Your task to perform on an android device: change your default location settings in chrome Image 0: 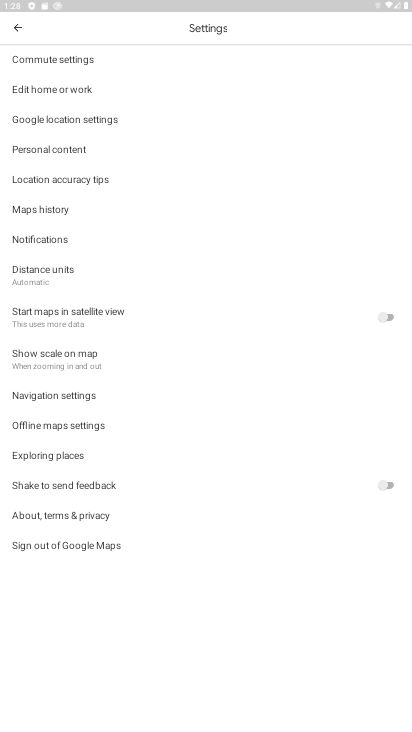
Step 0: press home button
Your task to perform on an android device: change your default location settings in chrome Image 1: 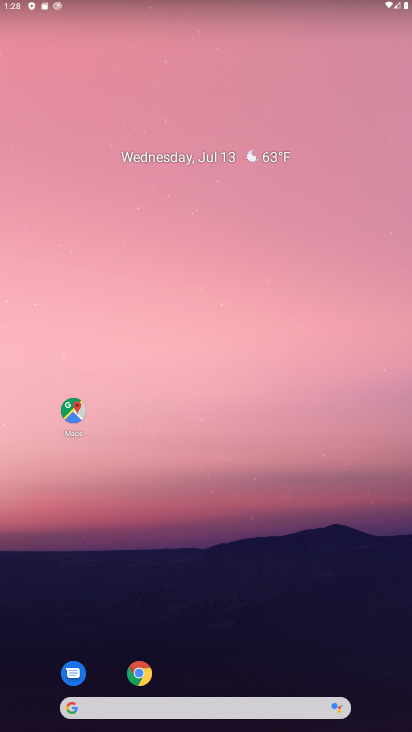
Step 1: drag from (241, 644) to (235, 410)
Your task to perform on an android device: change your default location settings in chrome Image 2: 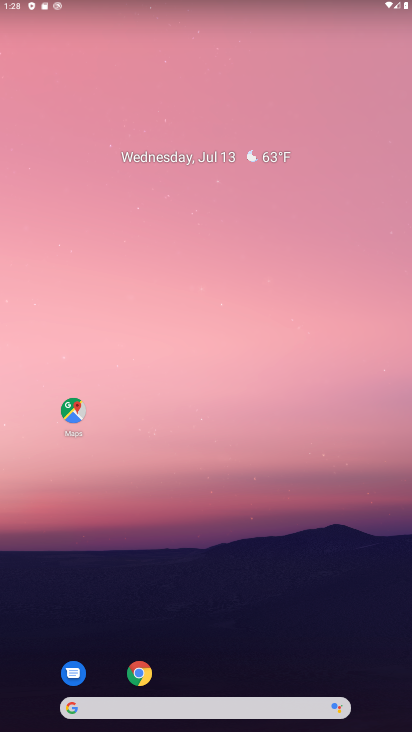
Step 2: drag from (184, 630) to (202, 301)
Your task to perform on an android device: change your default location settings in chrome Image 3: 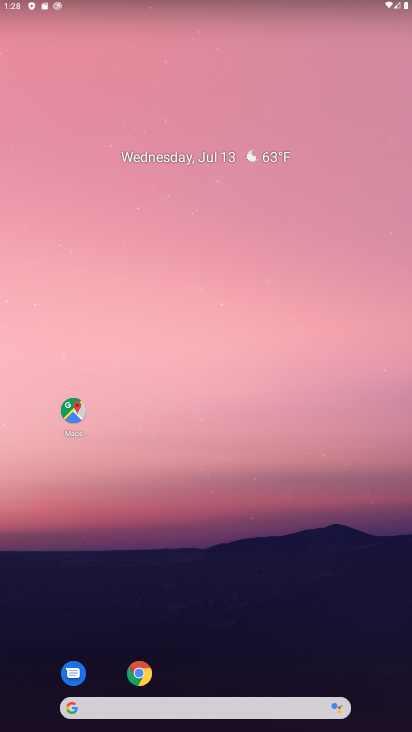
Step 3: drag from (267, 676) to (250, 232)
Your task to perform on an android device: change your default location settings in chrome Image 4: 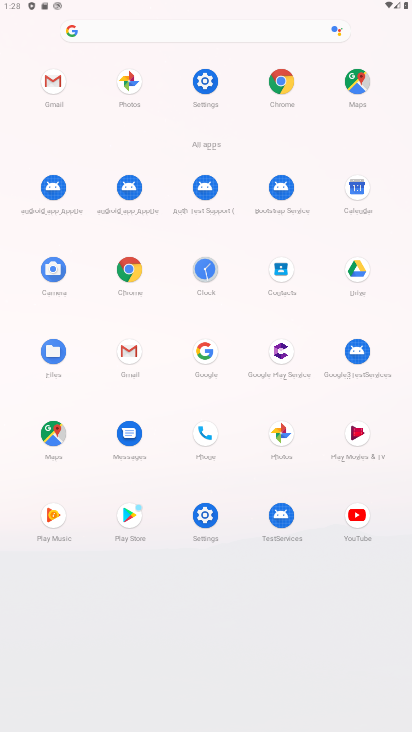
Step 4: click (289, 74)
Your task to perform on an android device: change your default location settings in chrome Image 5: 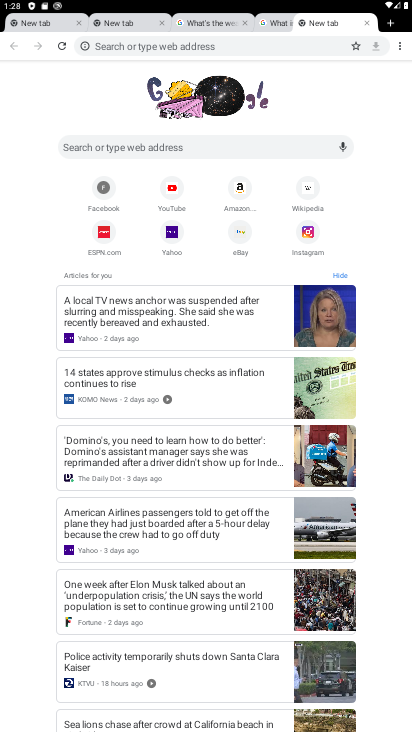
Step 5: click (410, 41)
Your task to perform on an android device: change your default location settings in chrome Image 6: 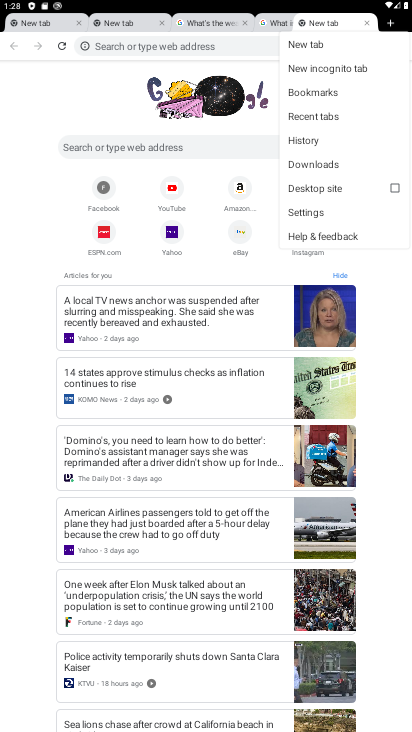
Step 6: click (321, 206)
Your task to perform on an android device: change your default location settings in chrome Image 7: 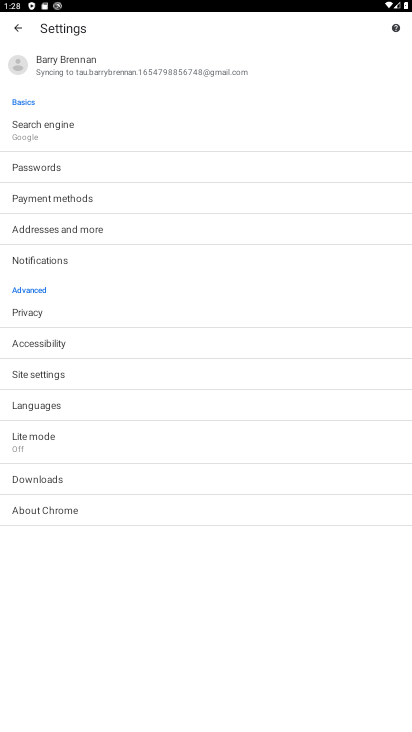
Step 7: click (67, 375)
Your task to perform on an android device: change your default location settings in chrome Image 8: 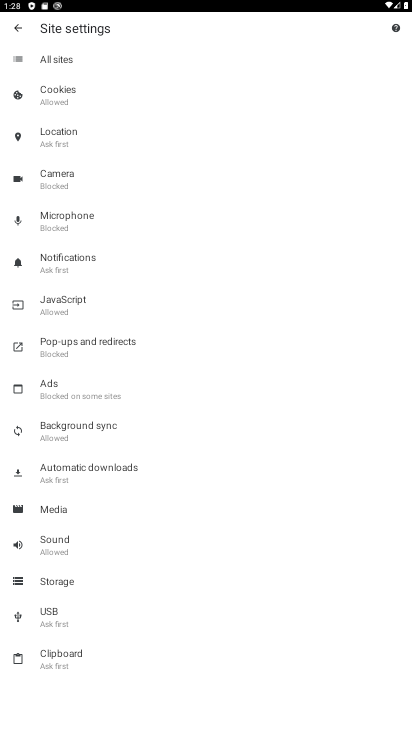
Step 8: click (85, 135)
Your task to perform on an android device: change your default location settings in chrome Image 9: 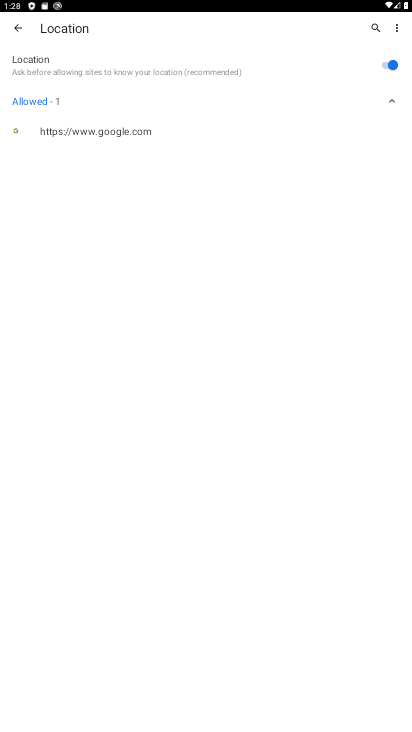
Step 9: click (376, 57)
Your task to perform on an android device: change your default location settings in chrome Image 10: 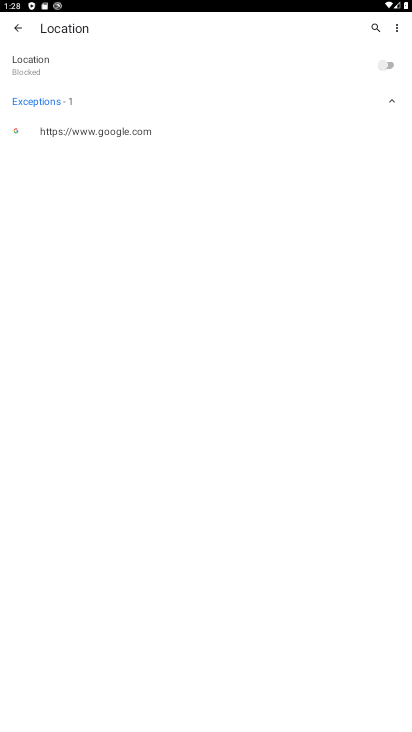
Step 10: task complete